Your task to perform on an android device: open device folders in google photos Image 0: 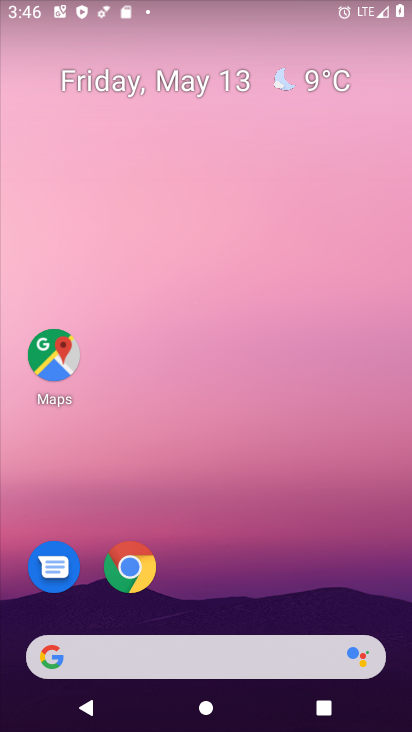
Step 0: drag from (268, 544) to (284, 5)
Your task to perform on an android device: open device folders in google photos Image 1: 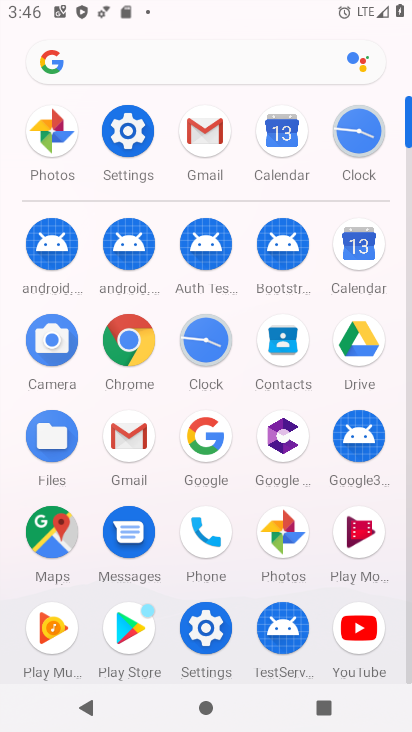
Step 1: click (285, 532)
Your task to perform on an android device: open device folders in google photos Image 2: 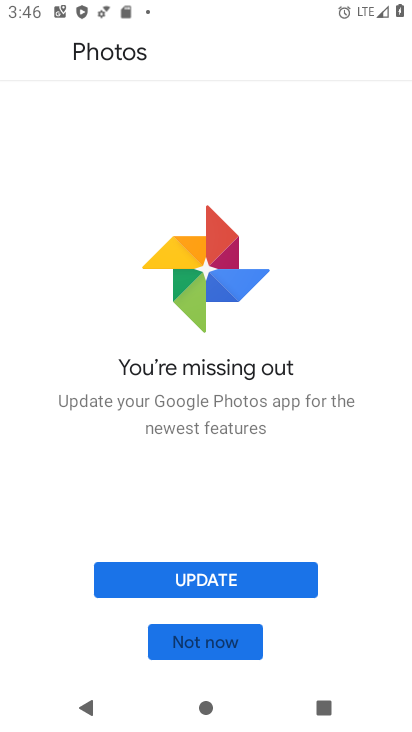
Step 2: click (204, 645)
Your task to perform on an android device: open device folders in google photos Image 3: 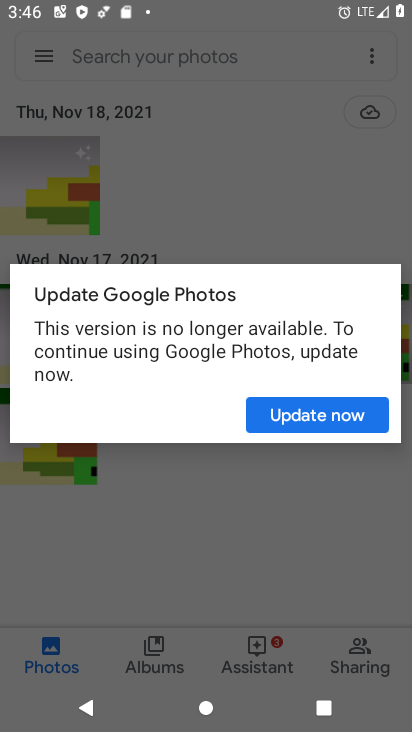
Step 3: click (295, 404)
Your task to perform on an android device: open device folders in google photos Image 4: 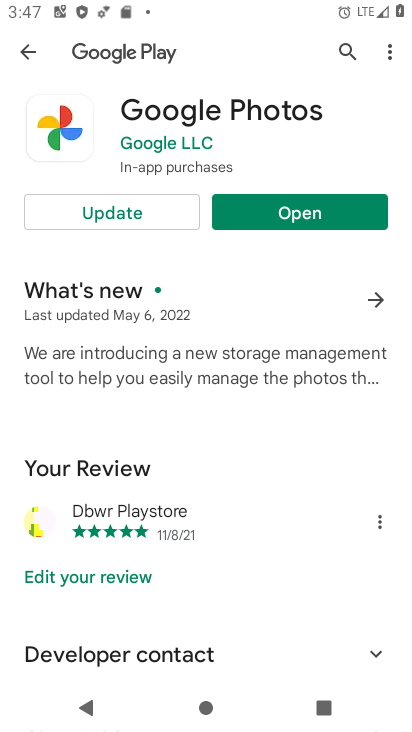
Step 4: click (294, 221)
Your task to perform on an android device: open device folders in google photos Image 5: 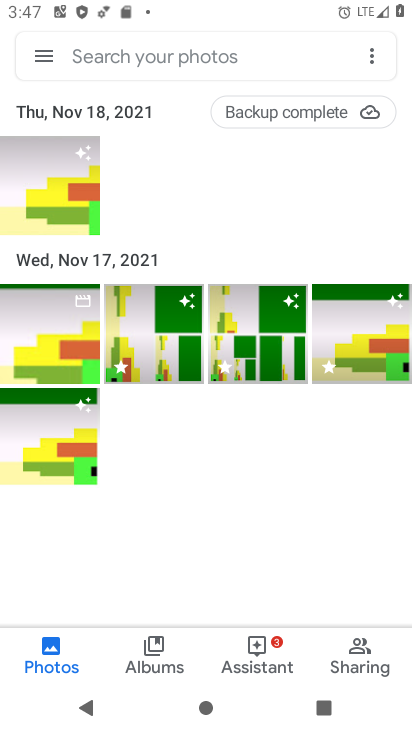
Step 5: click (42, 57)
Your task to perform on an android device: open device folders in google photos Image 6: 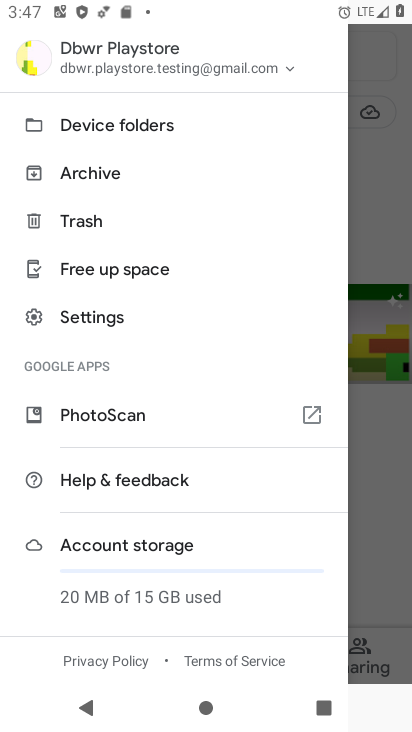
Step 6: click (82, 129)
Your task to perform on an android device: open device folders in google photos Image 7: 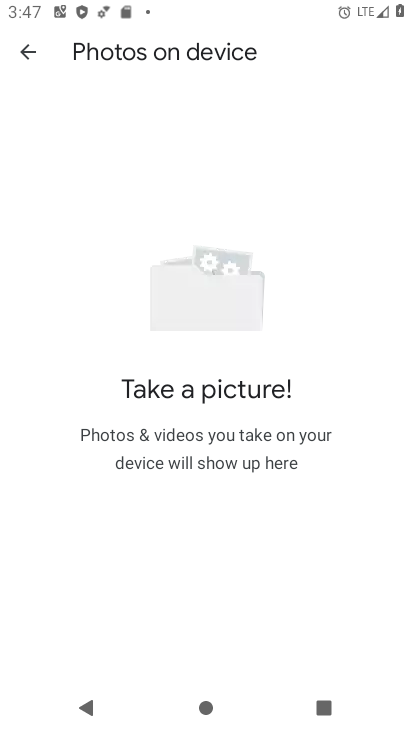
Step 7: task complete